Your task to perform on an android device: Go to Maps Image 0: 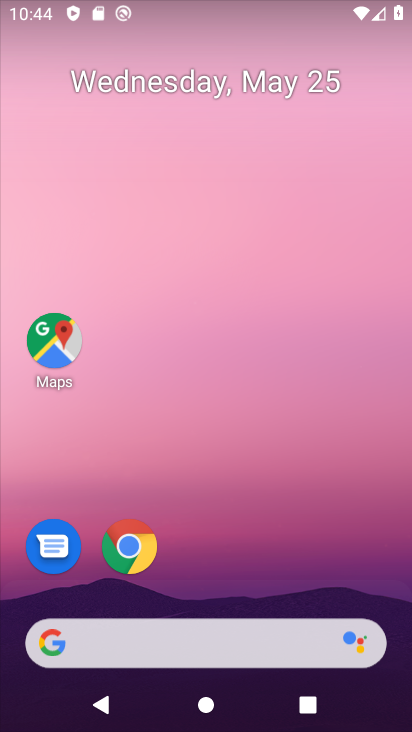
Step 0: drag from (356, 577) to (300, 103)
Your task to perform on an android device: Go to Maps Image 1: 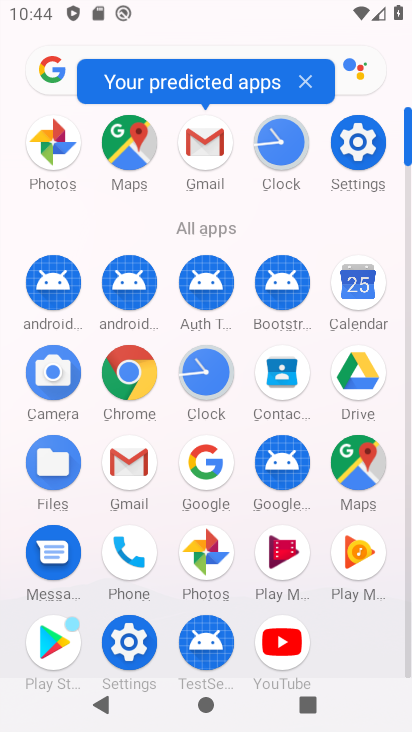
Step 1: click (351, 477)
Your task to perform on an android device: Go to Maps Image 2: 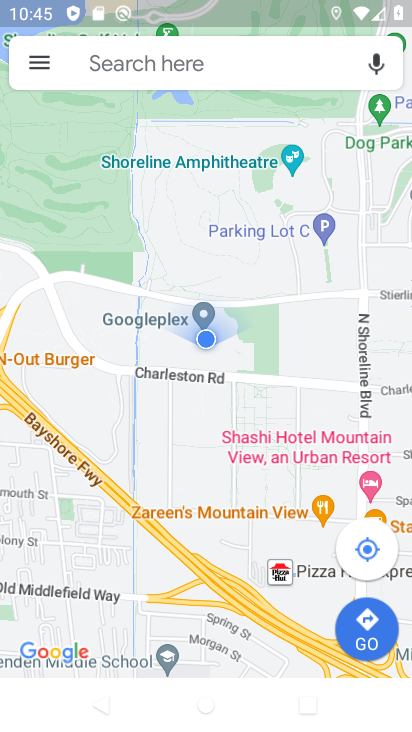
Step 2: task complete